Your task to perform on an android device: Show me popular games on the Play Store Image 0: 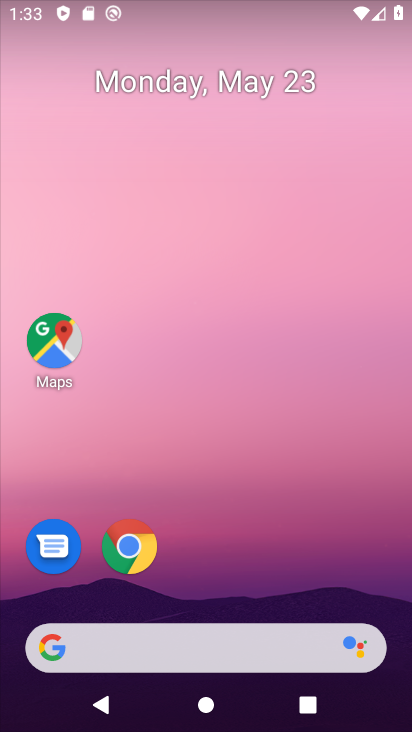
Step 0: drag from (201, 446) to (244, 109)
Your task to perform on an android device: Show me popular games on the Play Store Image 1: 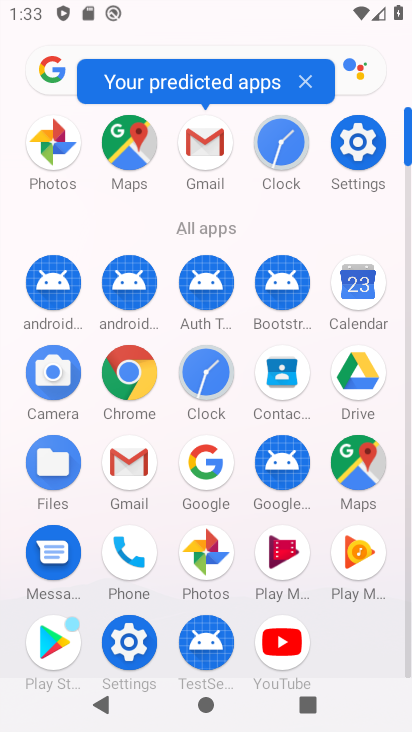
Step 1: click (44, 646)
Your task to perform on an android device: Show me popular games on the Play Store Image 2: 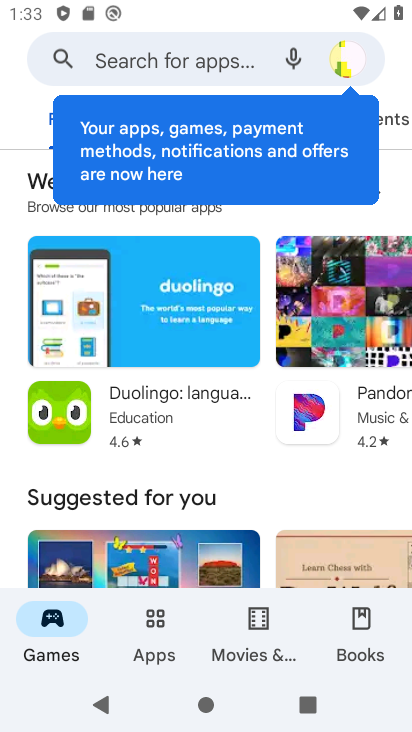
Step 2: drag from (218, 372) to (310, 15)
Your task to perform on an android device: Show me popular games on the Play Store Image 3: 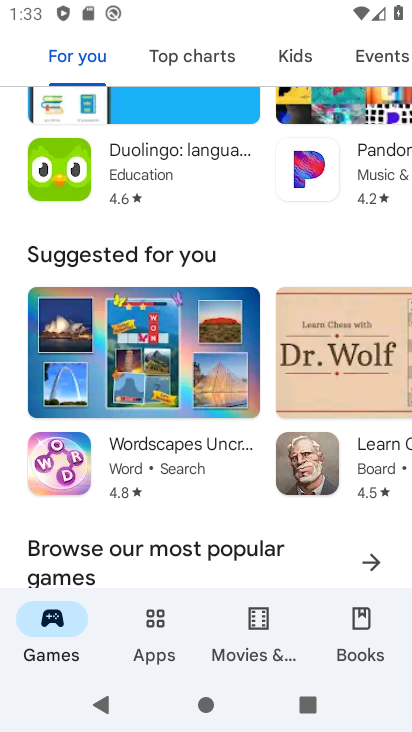
Step 3: drag from (159, 563) to (216, 202)
Your task to perform on an android device: Show me popular games on the Play Store Image 4: 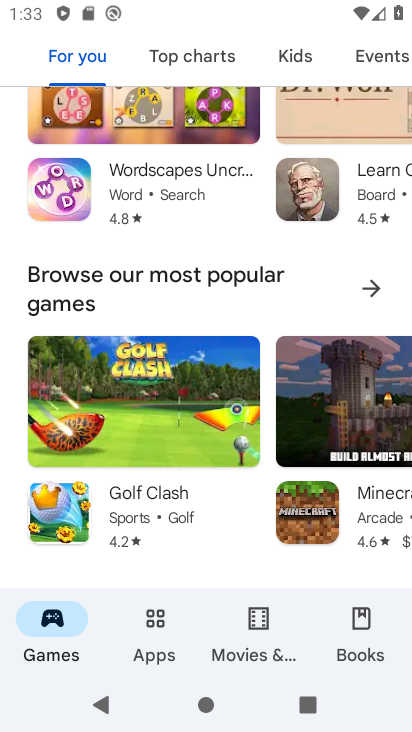
Step 4: click (366, 284)
Your task to perform on an android device: Show me popular games on the Play Store Image 5: 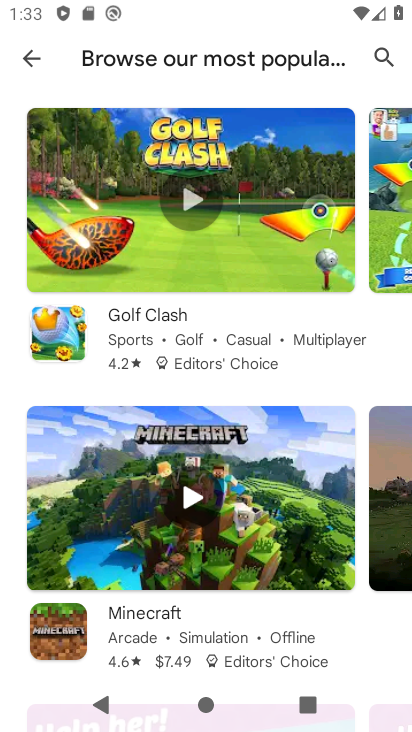
Step 5: task complete